Your task to perform on an android device: Go to sound settings Image 0: 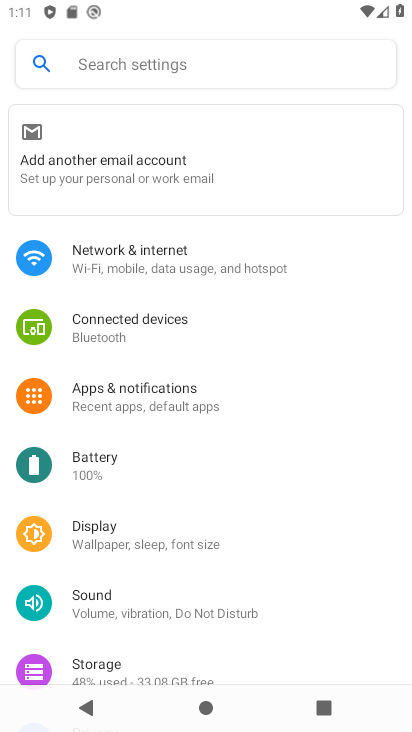
Step 0: click (134, 611)
Your task to perform on an android device: Go to sound settings Image 1: 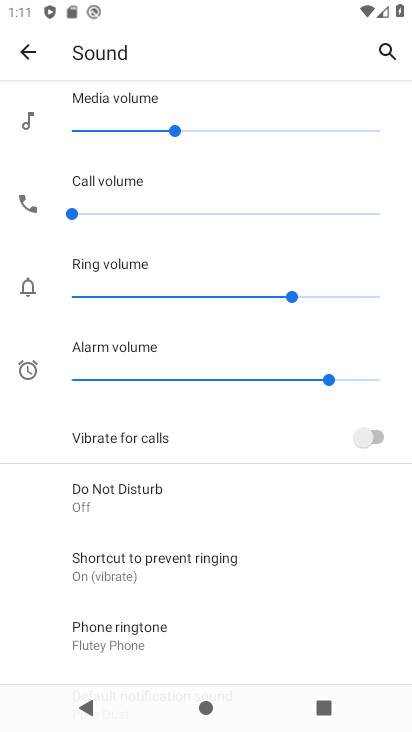
Step 1: task complete